Your task to perform on an android device: Open sound settings Image 0: 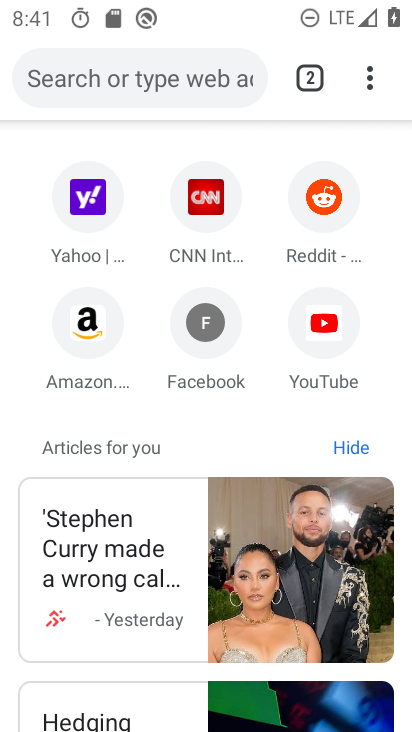
Step 0: press home button
Your task to perform on an android device: Open sound settings Image 1: 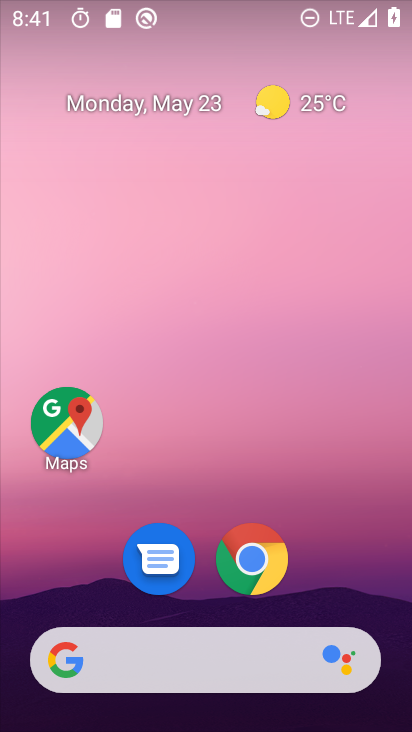
Step 1: drag from (388, 626) to (330, 120)
Your task to perform on an android device: Open sound settings Image 2: 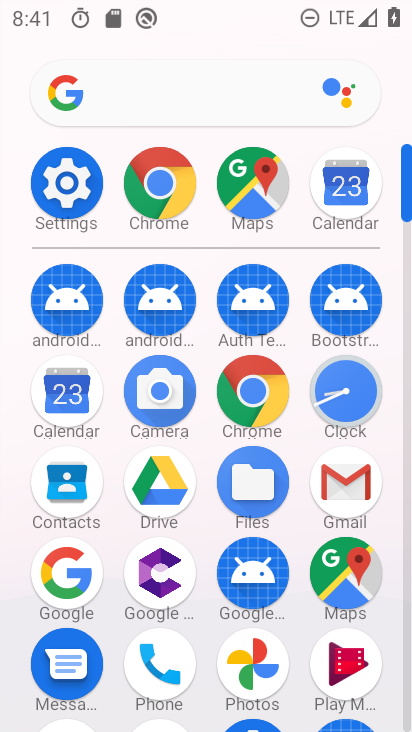
Step 2: click (69, 198)
Your task to perform on an android device: Open sound settings Image 3: 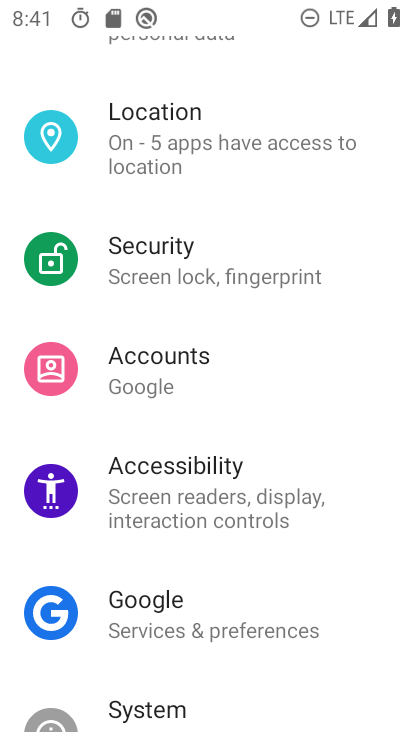
Step 3: drag from (184, 165) to (208, 478)
Your task to perform on an android device: Open sound settings Image 4: 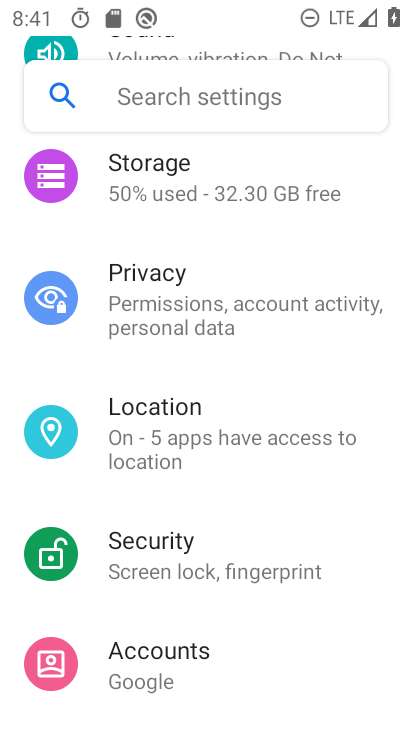
Step 4: drag from (226, 234) to (236, 571)
Your task to perform on an android device: Open sound settings Image 5: 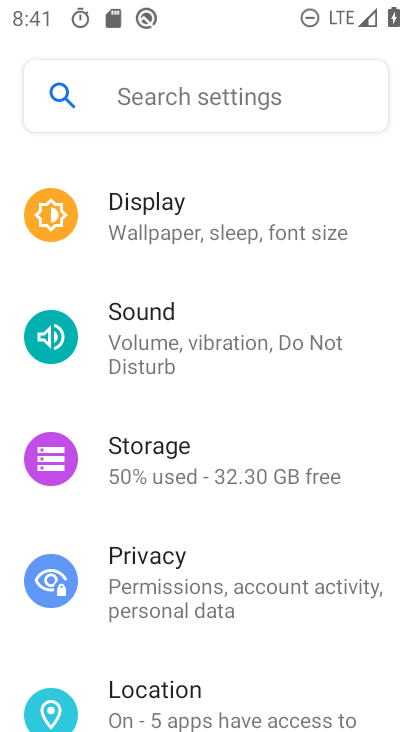
Step 5: click (249, 362)
Your task to perform on an android device: Open sound settings Image 6: 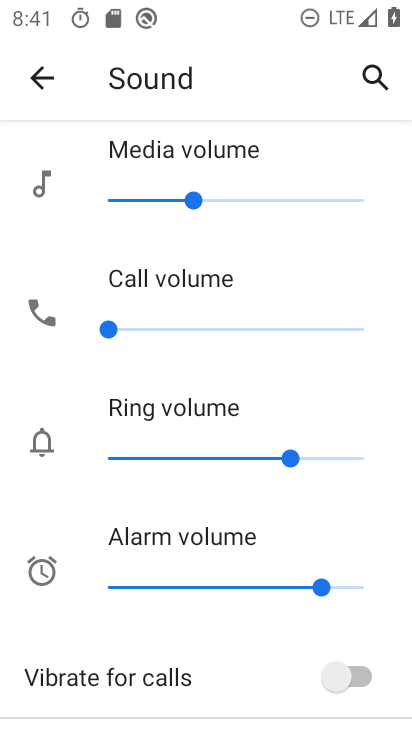
Step 6: task complete